Your task to perform on an android device: Open the Play Movies app and select the watchlist tab. Image 0: 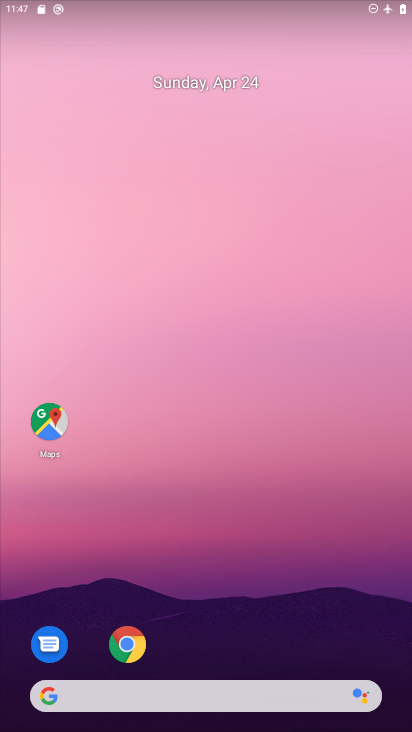
Step 0: drag from (228, 514) to (305, 56)
Your task to perform on an android device: Open the Play Movies app and select the watchlist tab. Image 1: 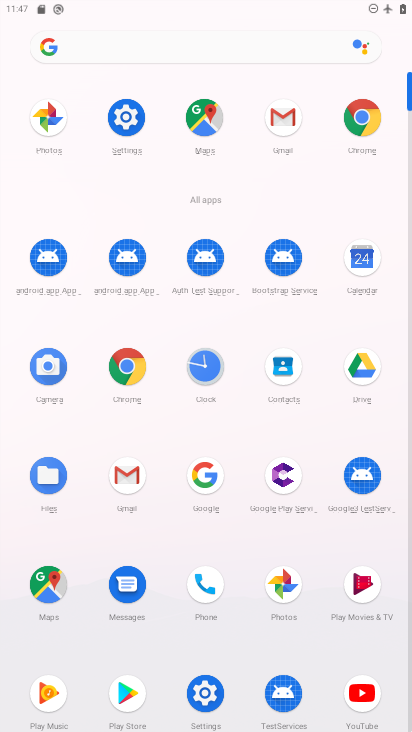
Step 1: click (362, 593)
Your task to perform on an android device: Open the Play Movies app and select the watchlist tab. Image 2: 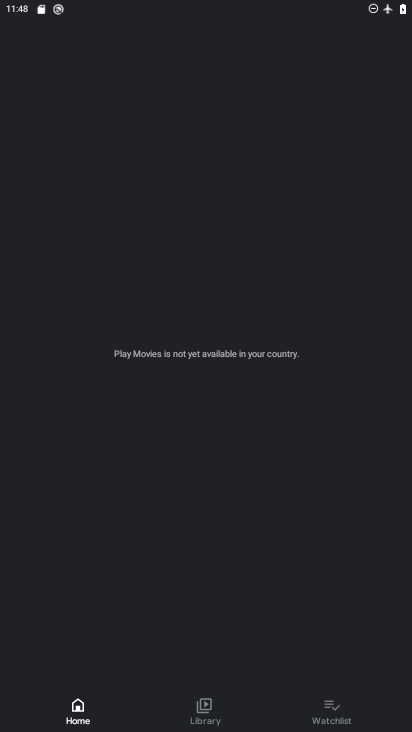
Step 2: click (330, 701)
Your task to perform on an android device: Open the Play Movies app and select the watchlist tab. Image 3: 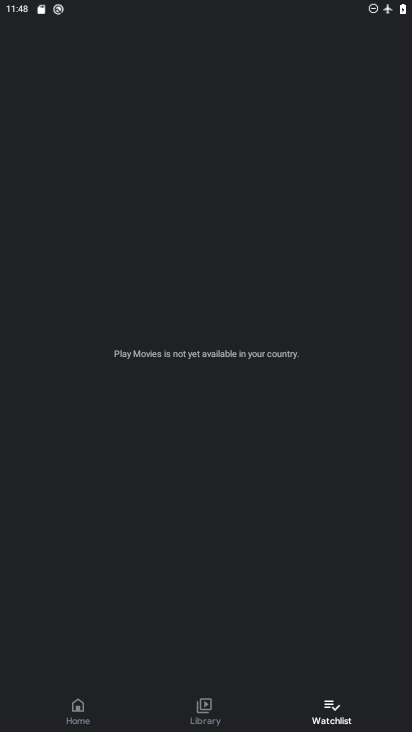
Step 3: task complete